Your task to perform on an android device: Open Chrome and go to settings Image 0: 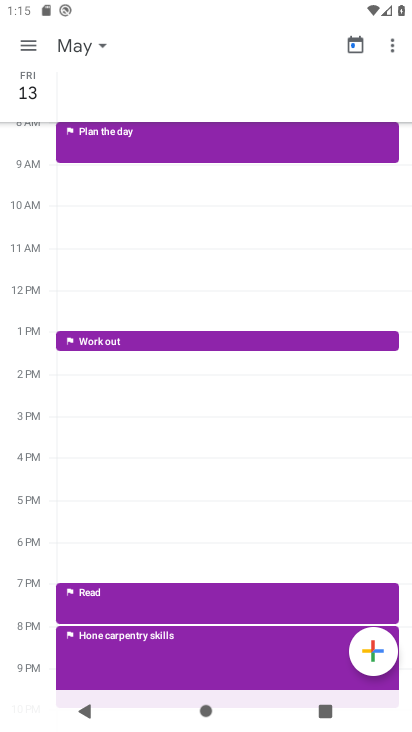
Step 0: press home button
Your task to perform on an android device: Open Chrome and go to settings Image 1: 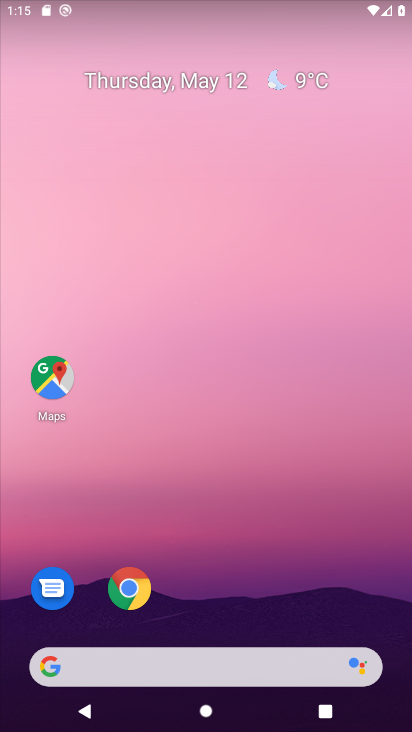
Step 1: drag from (280, 560) to (188, 17)
Your task to perform on an android device: Open Chrome and go to settings Image 2: 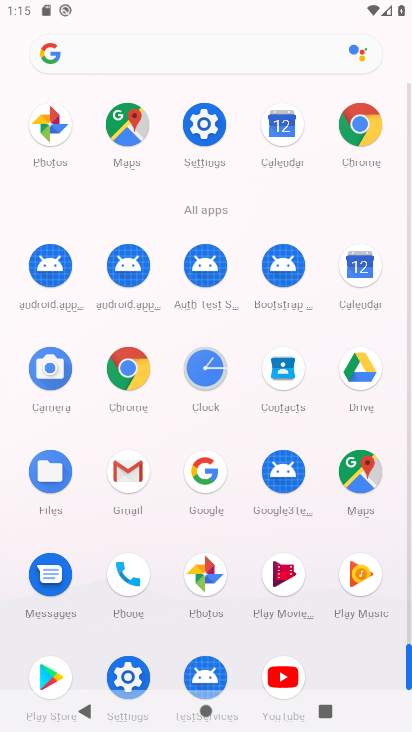
Step 2: click (198, 128)
Your task to perform on an android device: Open Chrome and go to settings Image 3: 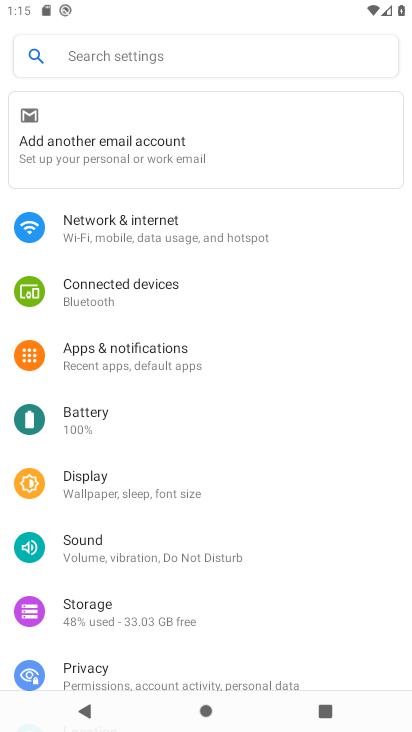
Step 3: press home button
Your task to perform on an android device: Open Chrome and go to settings Image 4: 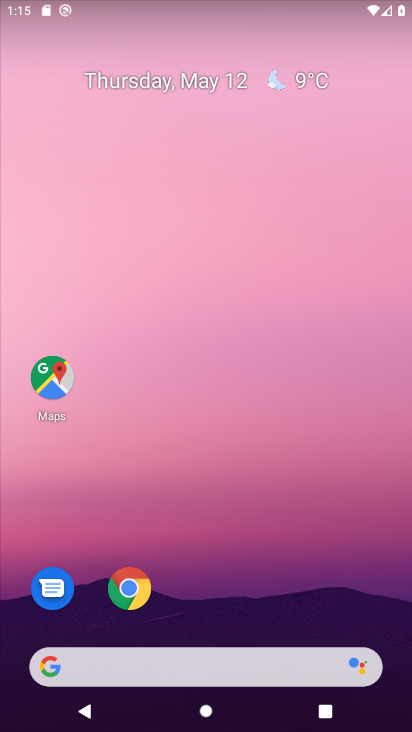
Step 4: drag from (341, 571) to (335, 61)
Your task to perform on an android device: Open Chrome and go to settings Image 5: 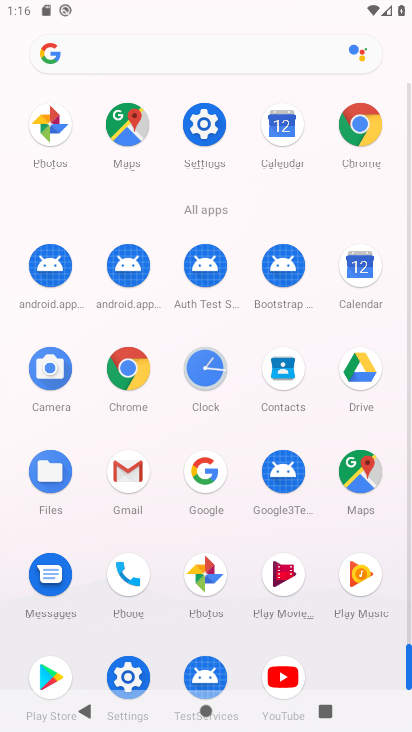
Step 5: click (350, 119)
Your task to perform on an android device: Open Chrome and go to settings Image 6: 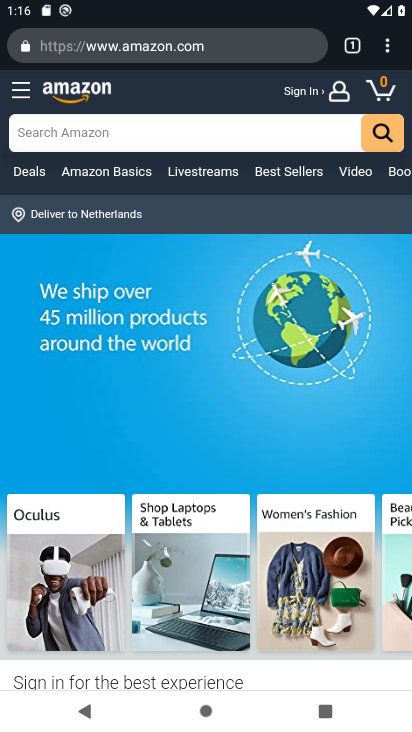
Step 6: task complete